Your task to perform on an android device: find snoozed emails in the gmail app Image 0: 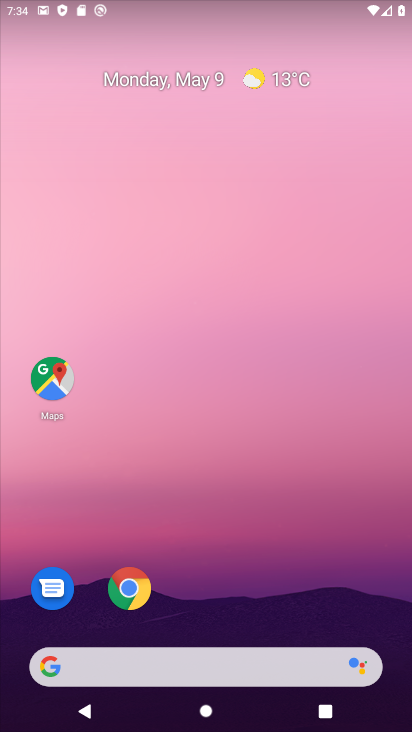
Step 0: drag from (291, 559) to (368, 97)
Your task to perform on an android device: find snoozed emails in the gmail app Image 1: 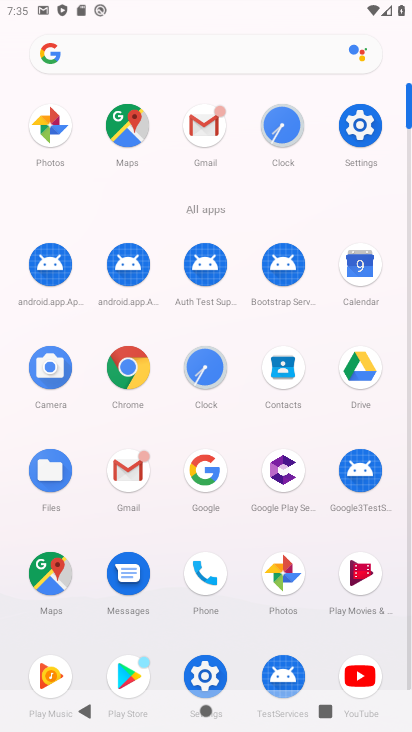
Step 1: click (194, 143)
Your task to perform on an android device: find snoozed emails in the gmail app Image 2: 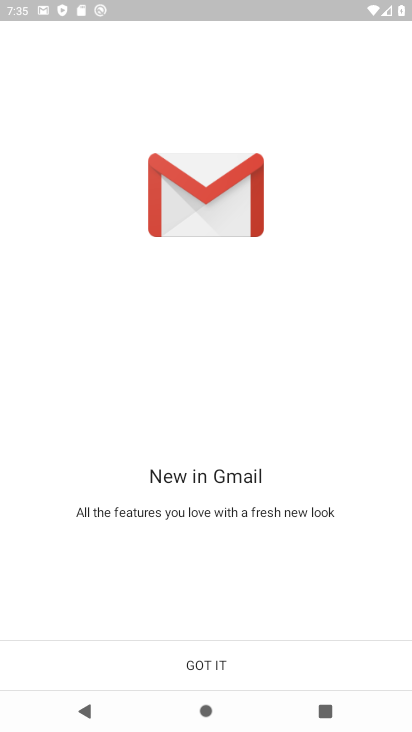
Step 2: click (201, 655)
Your task to perform on an android device: find snoozed emails in the gmail app Image 3: 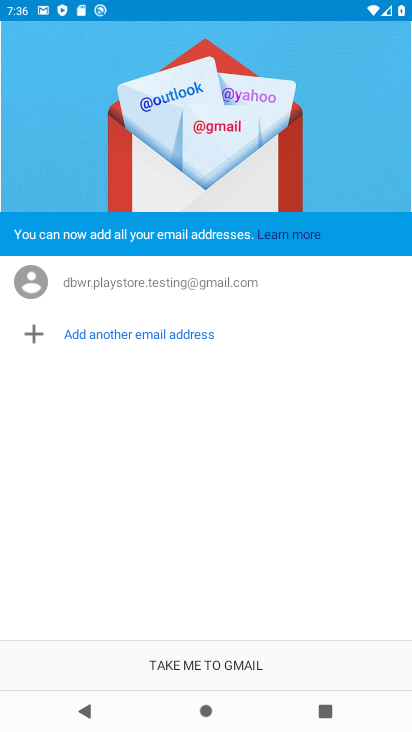
Step 3: click (201, 655)
Your task to perform on an android device: find snoozed emails in the gmail app Image 4: 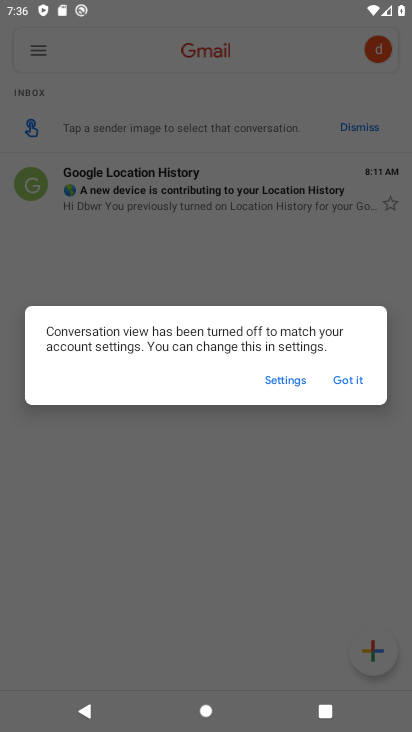
Step 4: click (352, 383)
Your task to perform on an android device: find snoozed emails in the gmail app Image 5: 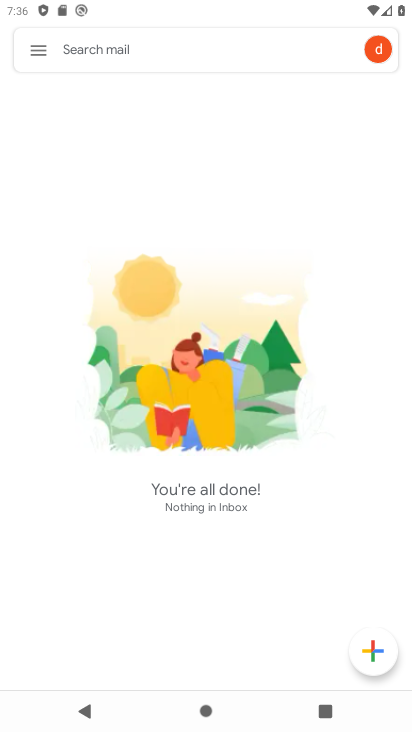
Step 5: click (44, 54)
Your task to perform on an android device: find snoozed emails in the gmail app Image 6: 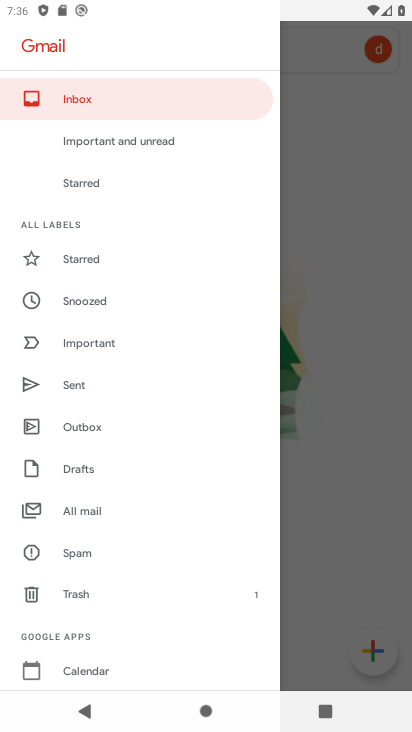
Step 6: click (97, 516)
Your task to perform on an android device: find snoozed emails in the gmail app Image 7: 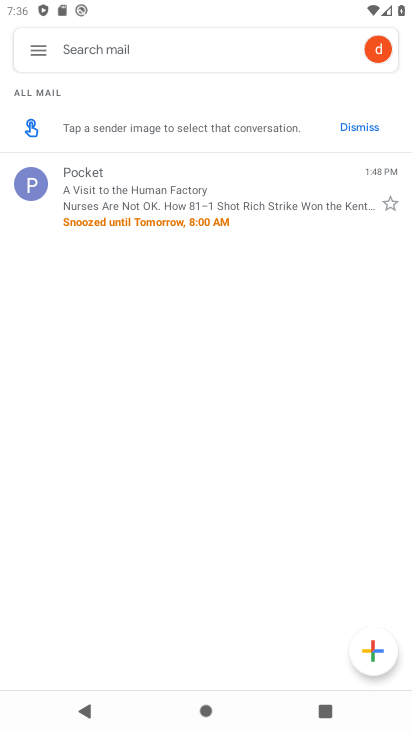
Step 7: task complete